Your task to perform on an android device: change the clock display to show seconds Image 0: 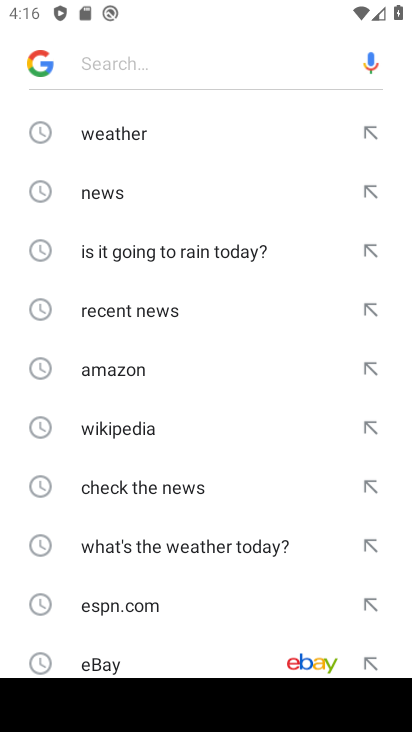
Step 0: press back button
Your task to perform on an android device: change the clock display to show seconds Image 1: 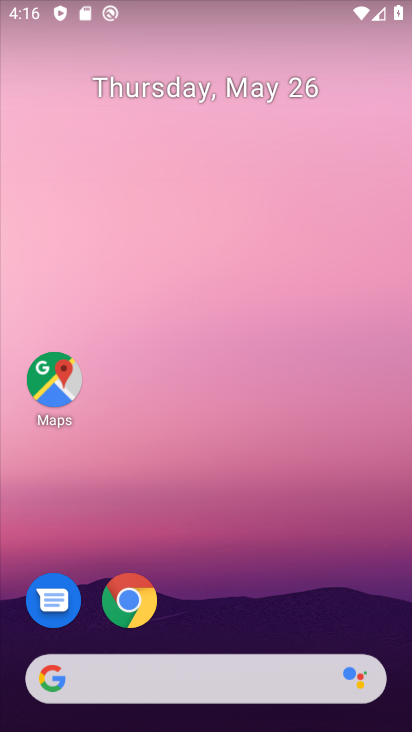
Step 1: drag from (196, 604) to (199, 185)
Your task to perform on an android device: change the clock display to show seconds Image 2: 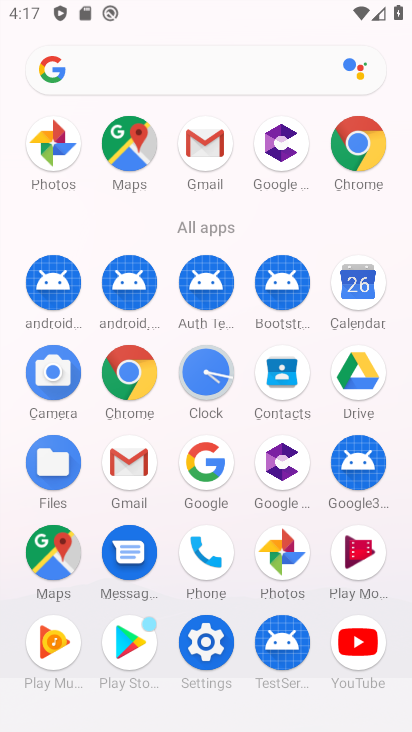
Step 2: click (217, 371)
Your task to perform on an android device: change the clock display to show seconds Image 3: 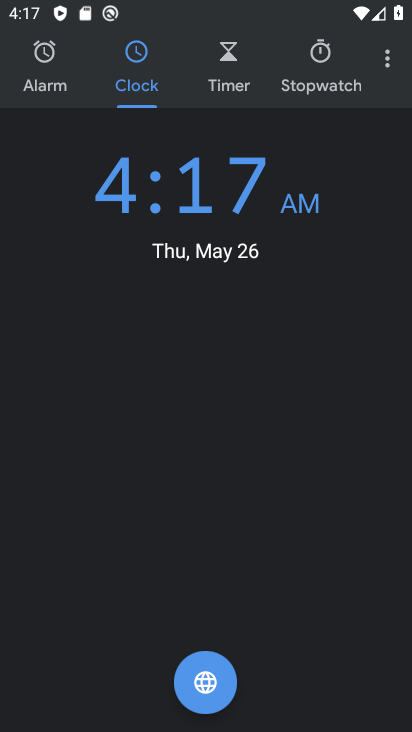
Step 3: click (395, 63)
Your task to perform on an android device: change the clock display to show seconds Image 4: 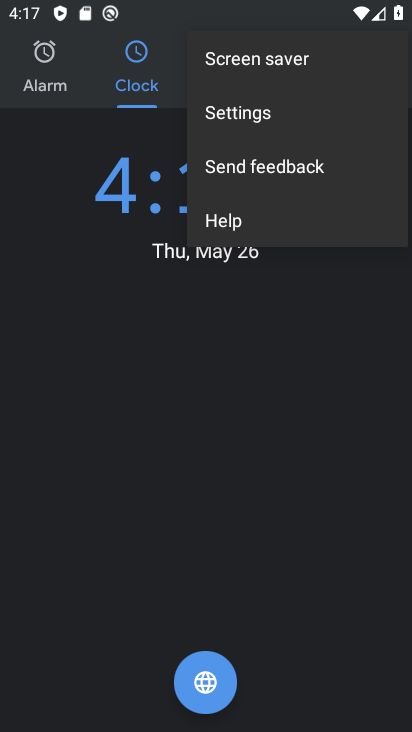
Step 4: click (314, 108)
Your task to perform on an android device: change the clock display to show seconds Image 5: 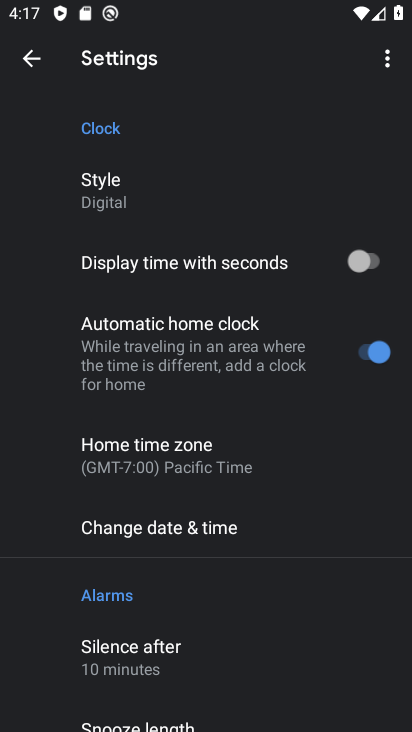
Step 5: click (356, 263)
Your task to perform on an android device: change the clock display to show seconds Image 6: 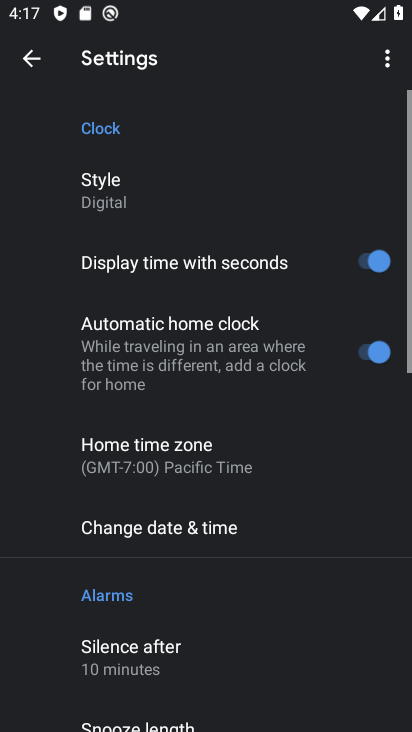
Step 6: task complete